Your task to perform on an android device: Open ESPN.com Image 0: 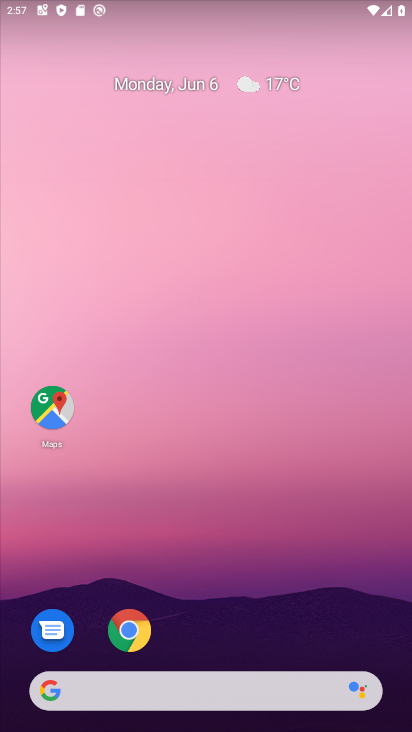
Step 0: click (132, 621)
Your task to perform on an android device: Open ESPN.com Image 1: 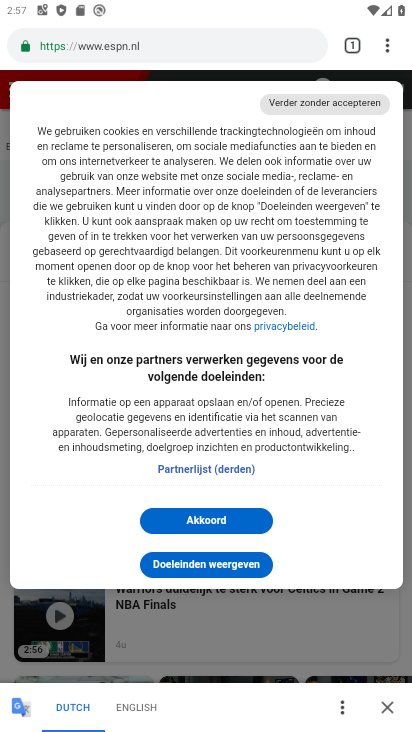
Step 1: click (355, 46)
Your task to perform on an android device: Open ESPN.com Image 2: 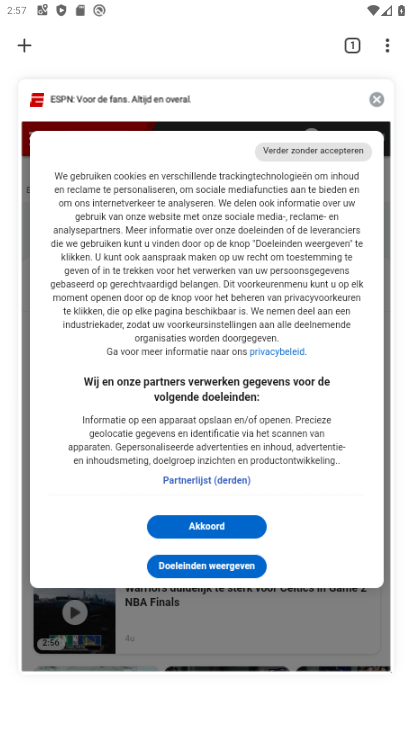
Step 2: click (189, 335)
Your task to perform on an android device: Open ESPN.com Image 3: 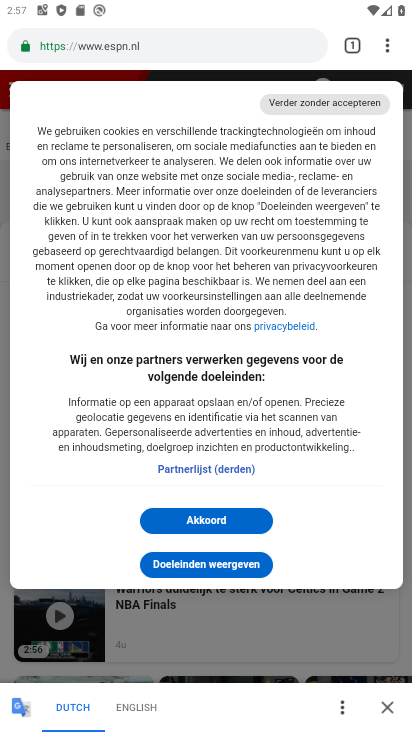
Step 3: task complete